Your task to perform on an android device: turn on the 24-hour format for clock Image 0: 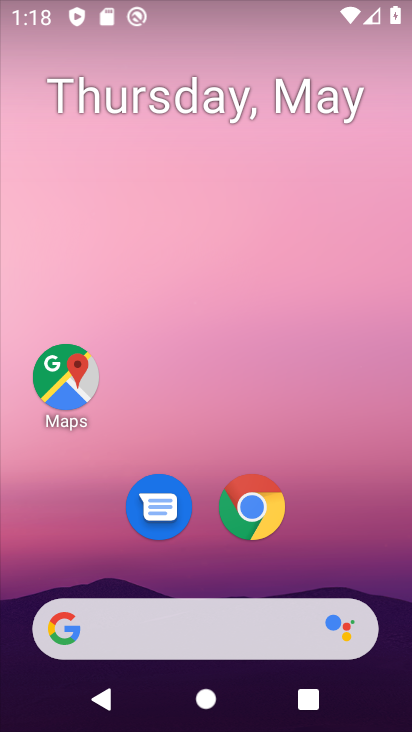
Step 0: drag from (307, 551) to (342, 224)
Your task to perform on an android device: turn on the 24-hour format for clock Image 1: 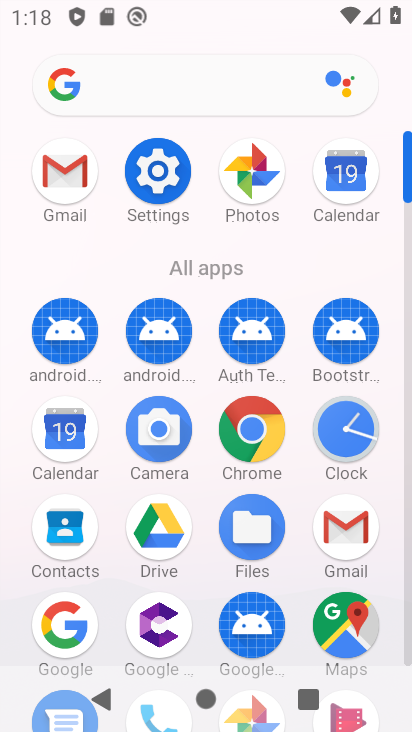
Step 1: click (341, 412)
Your task to perform on an android device: turn on the 24-hour format for clock Image 2: 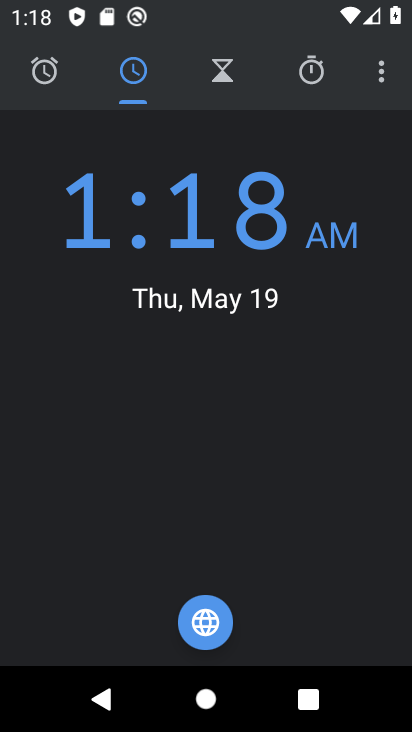
Step 2: click (387, 50)
Your task to perform on an android device: turn on the 24-hour format for clock Image 3: 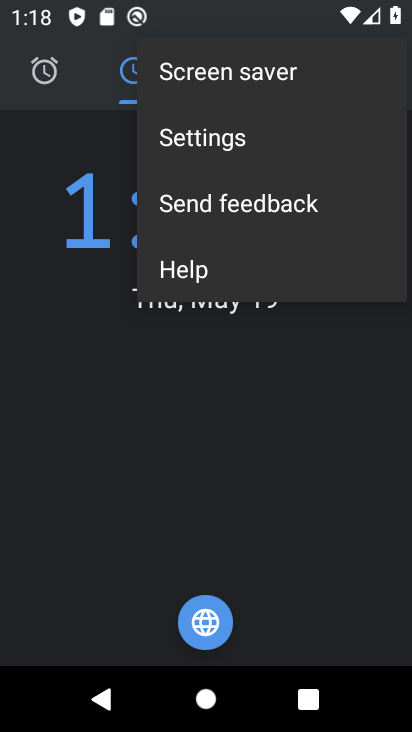
Step 3: click (257, 134)
Your task to perform on an android device: turn on the 24-hour format for clock Image 4: 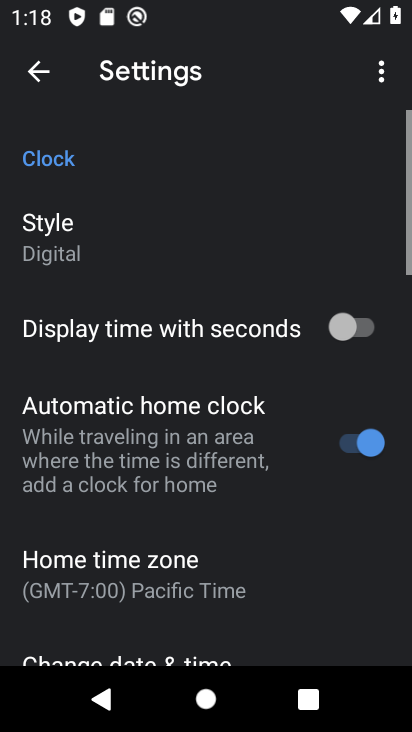
Step 4: drag from (181, 537) to (252, 192)
Your task to perform on an android device: turn on the 24-hour format for clock Image 5: 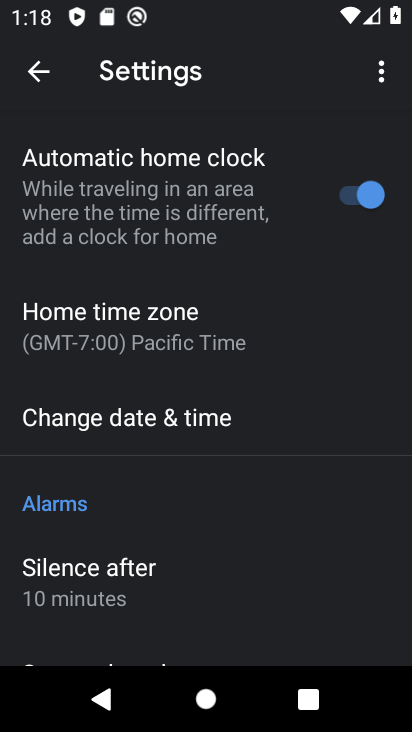
Step 5: drag from (209, 558) to (237, 345)
Your task to perform on an android device: turn on the 24-hour format for clock Image 6: 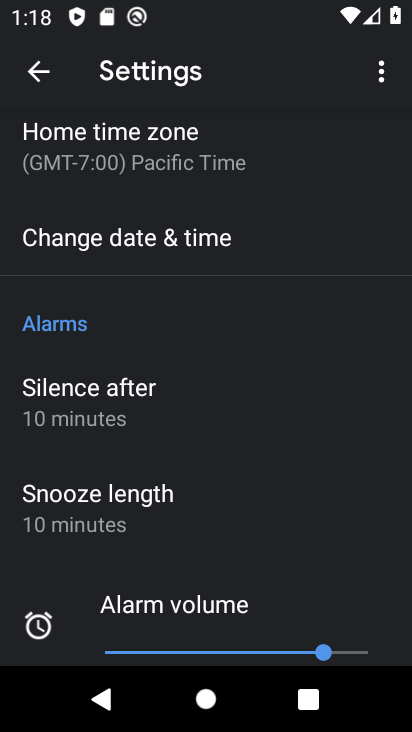
Step 6: click (144, 227)
Your task to perform on an android device: turn on the 24-hour format for clock Image 7: 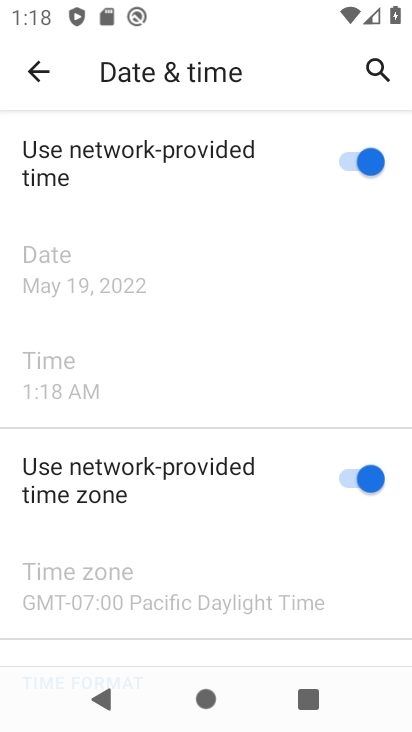
Step 7: drag from (230, 507) to (255, 172)
Your task to perform on an android device: turn on the 24-hour format for clock Image 8: 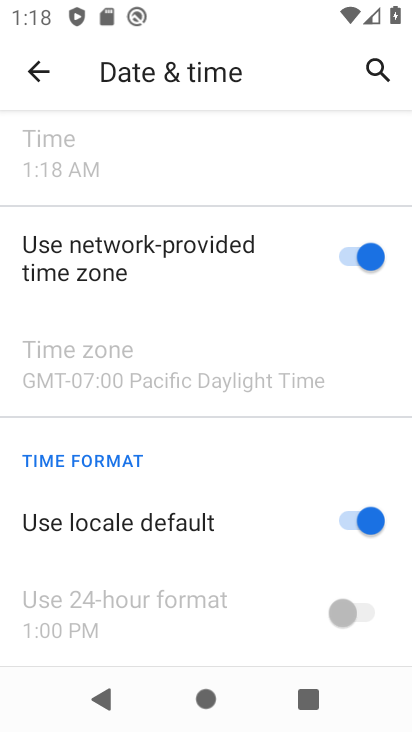
Step 8: click (348, 520)
Your task to perform on an android device: turn on the 24-hour format for clock Image 9: 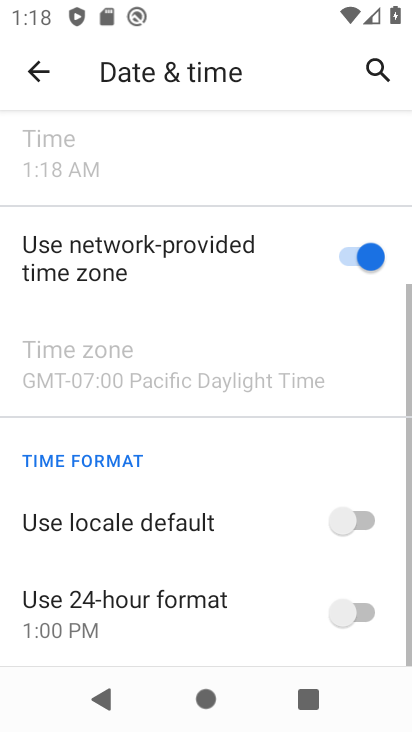
Step 9: click (377, 604)
Your task to perform on an android device: turn on the 24-hour format for clock Image 10: 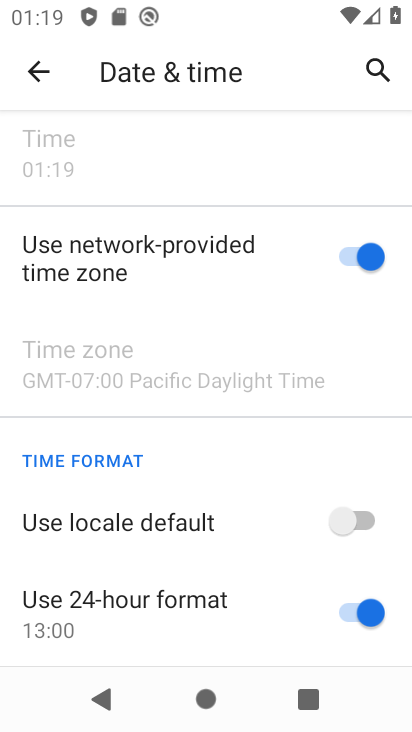
Step 10: task complete